Your task to perform on an android device: open device folders in google photos Image 0: 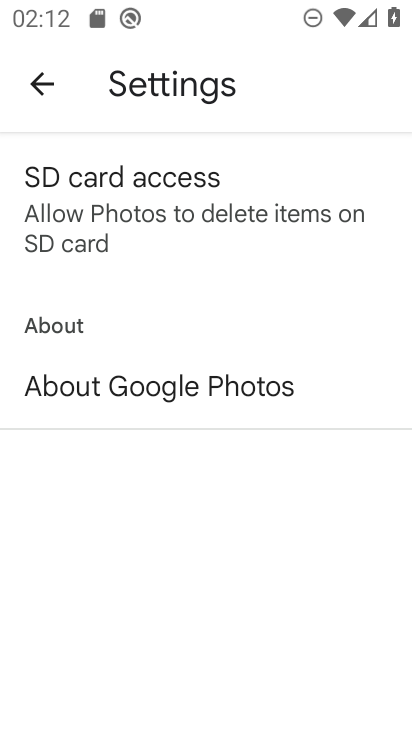
Step 0: press home button
Your task to perform on an android device: open device folders in google photos Image 1: 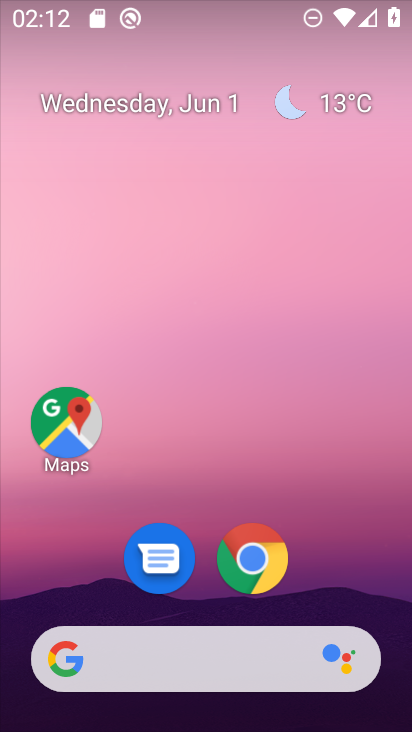
Step 1: drag from (388, 649) to (364, 151)
Your task to perform on an android device: open device folders in google photos Image 2: 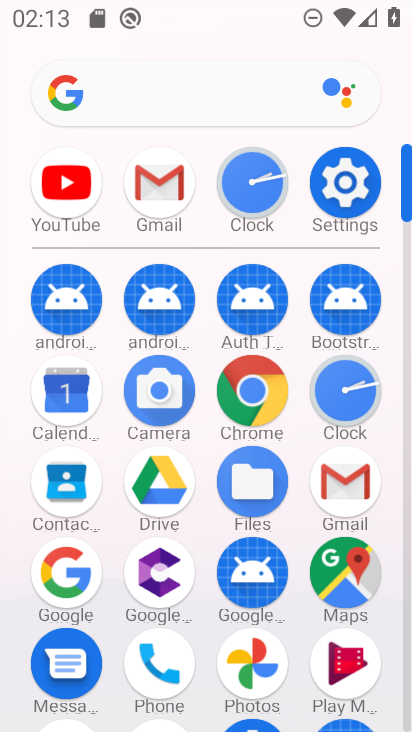
Step 2: click (251, 639)
Your task to perform on an android device: open device folders in google photos Image 3: 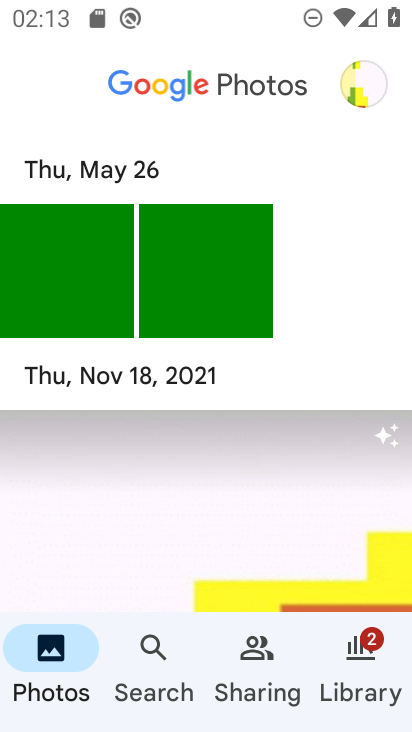
Step 3: task complete